Your task to perform on an android device: Show me the alarms in the clock app Image 0: 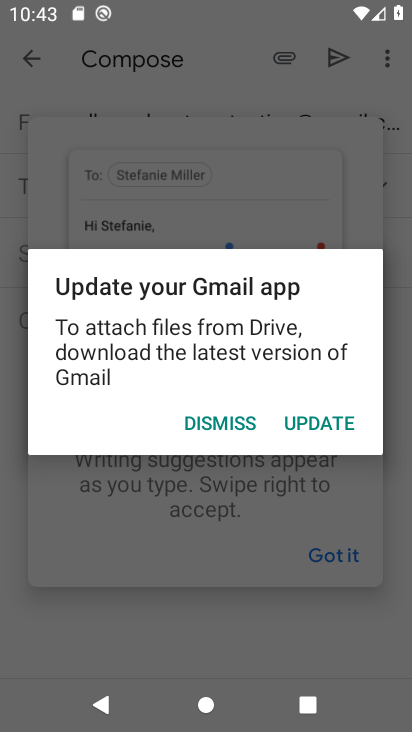
Step 0: press home button
Your task to perform on an android device: Show me the alarms in the clock app Image 1: 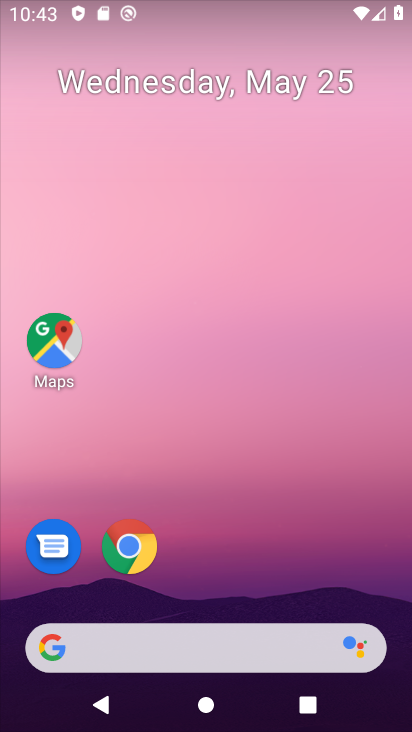
Step 1: drag from (187, 580) to (267, 107)
Your task to perform on an android device: Show me the alarms in the clock app Image 2: 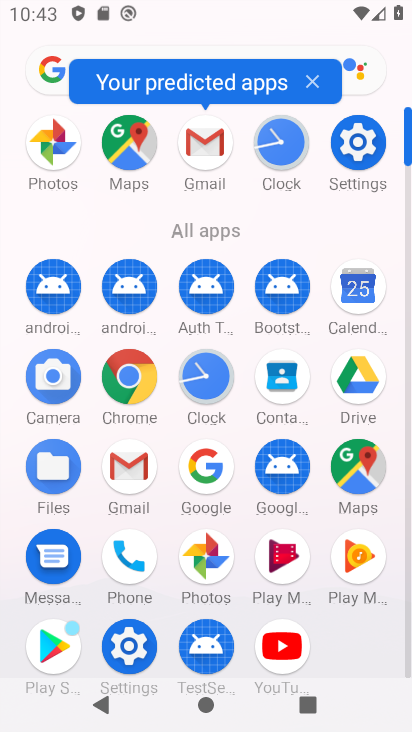
Step 2: click (208, 376)
Your task to perform on an android device: Show me the alarms in the clock app Image 3: 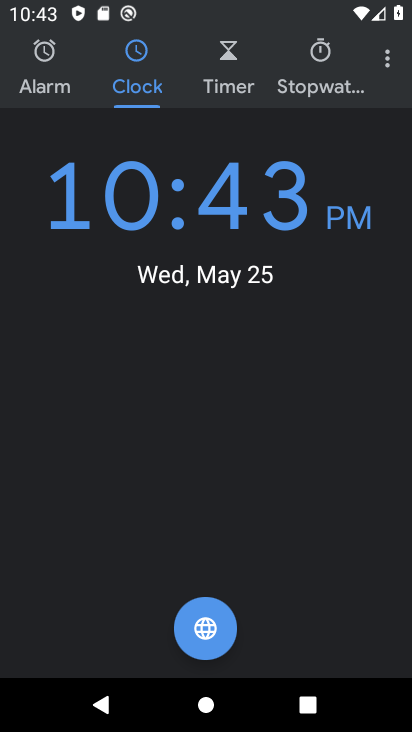
Step 3: click (47, 75)
Your task to perform on an android device: Show me the alarms in the clock app Image 4: 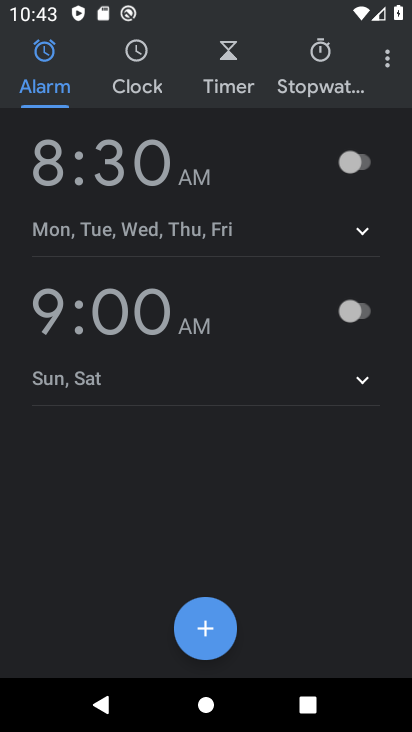
Step 4: task complete